Your task to perform on an android device: Go to accessibility settings Image 0: 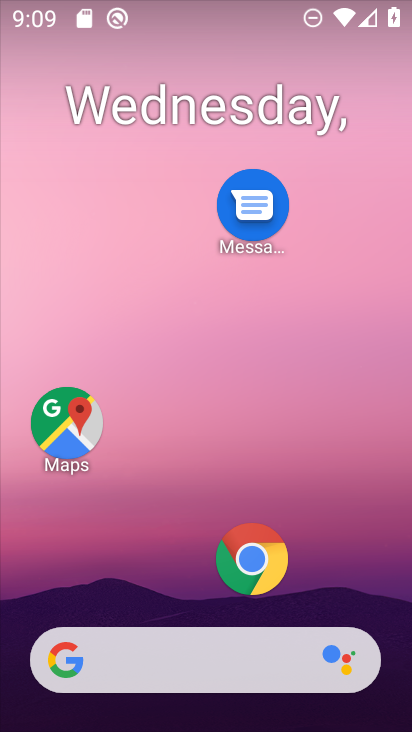
Step 0: drag from (155, 605) to (118, 135)
Your task to perform on an android device: Go to accessibility settings Image 1: 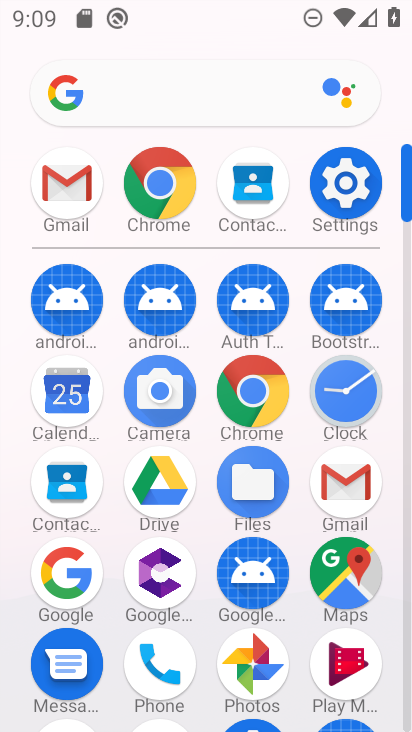
Step 1: click (346, 192)
Your task to perform on an android device: Go to accessibility settings Image 2: 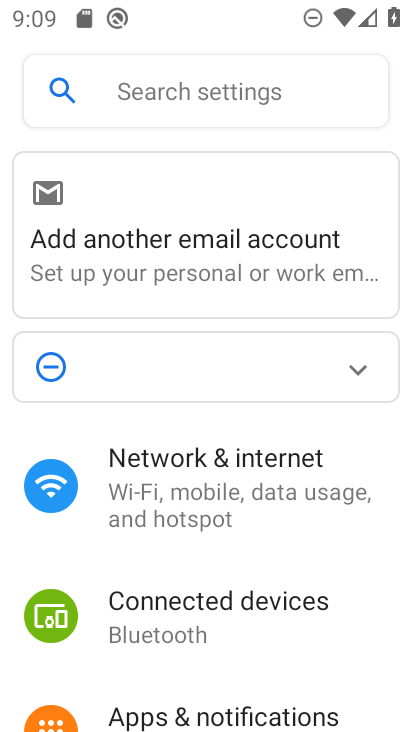
Step 2: drag from (216, 633) to (220, 49)
Your task to perform on an android device: Go to accessibility settings Image 3: 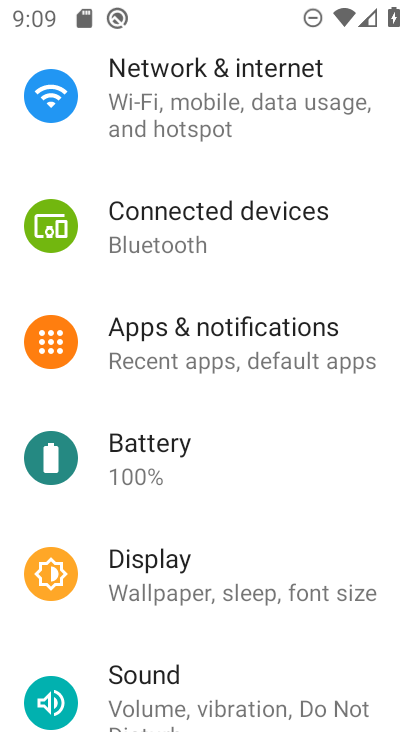
Step 3: drag from (203, 568) to (239, 145)
Your task to perform on an android device: Go to accessibility settings Image 4: 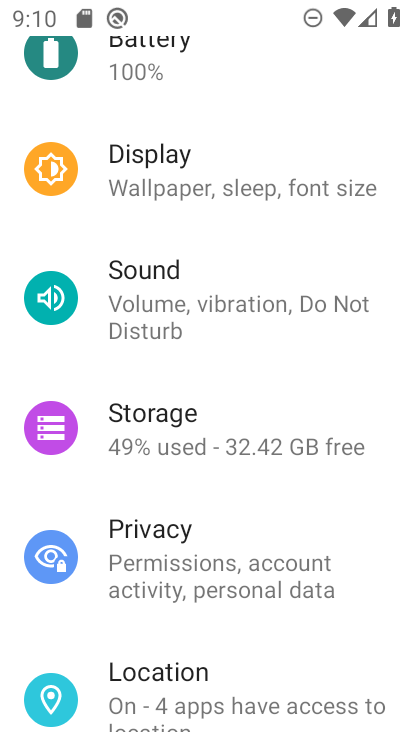
Step 4: drag from (207, 577) to (256, 215)
Your task to perform on an android device: Go to accessibility settings Image 5: 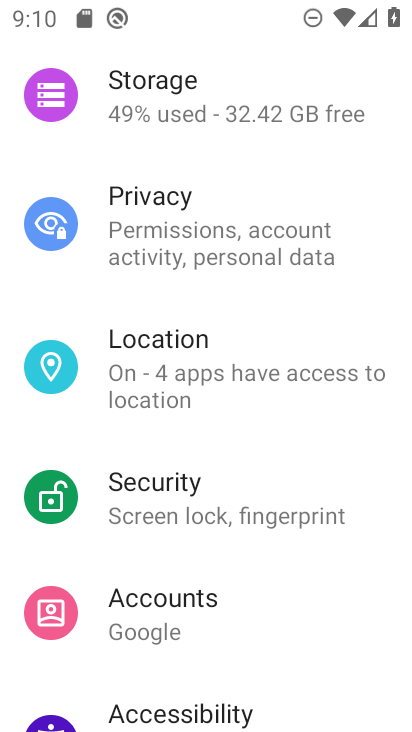
Step 5: drag from (234, 580) to (267, 233)
Your task to perform on an android device: Go to accessibility settings Image 6: 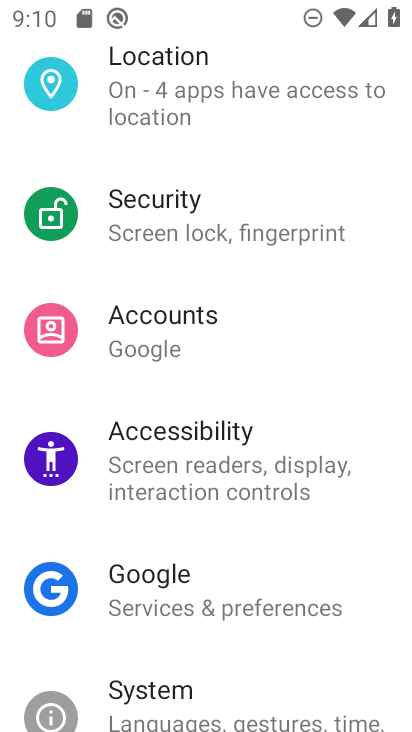
Step 6: drag from (248, 516) to (284, 111)
Your task to perform on an android device: Go to accessibility settings Image 7: 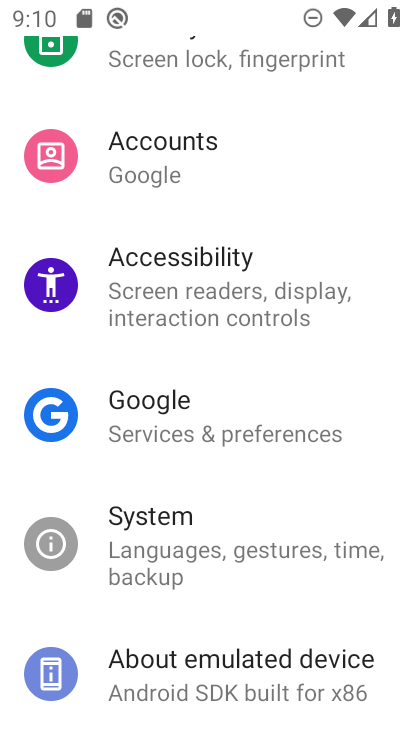
Step 7: click (232, 315)
Your task to perform on an android device: Go to accessibility settings Image 8: 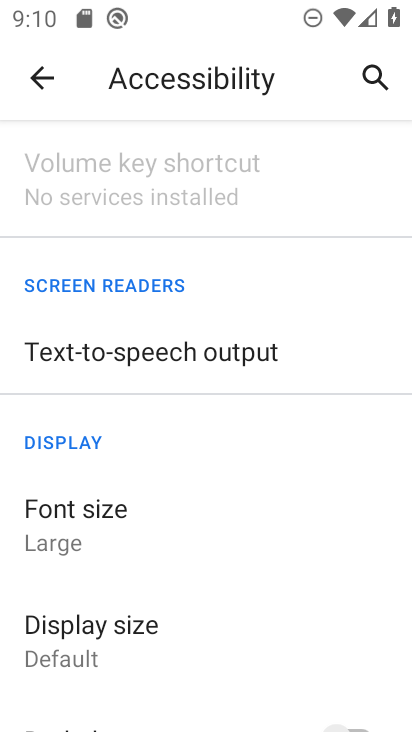
Step 8: task complete